Your task to perform on an android device: Go to Yahoo.com Image 0: 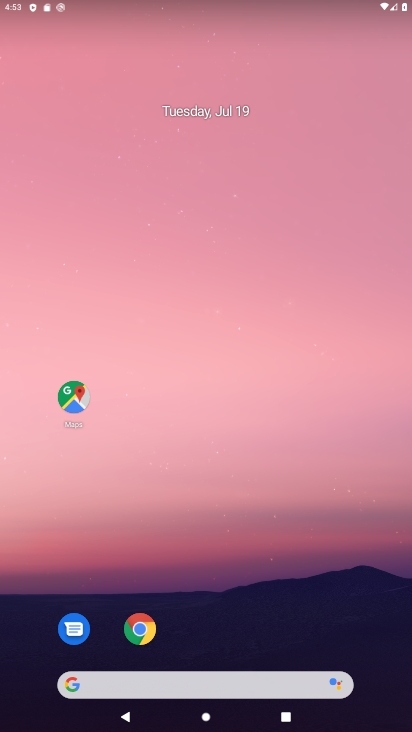
Step 0: click (78, 691)
Your task to perform on an android device: Go to Yahoo.com Image 1: 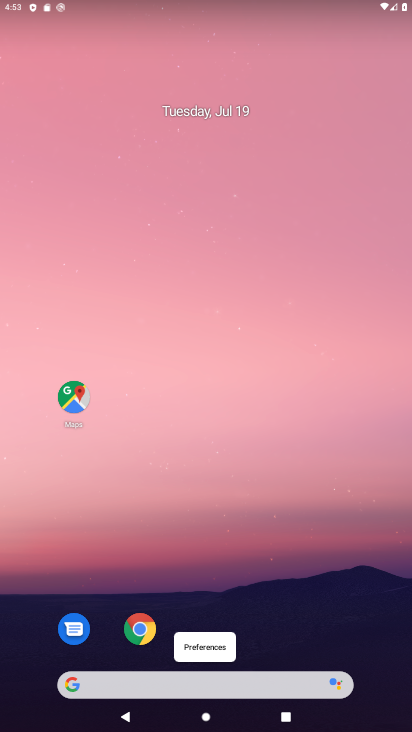
Step 1: click (73, 687)
Your task to perform on an android device: Go to Yahoo.com Image 2: 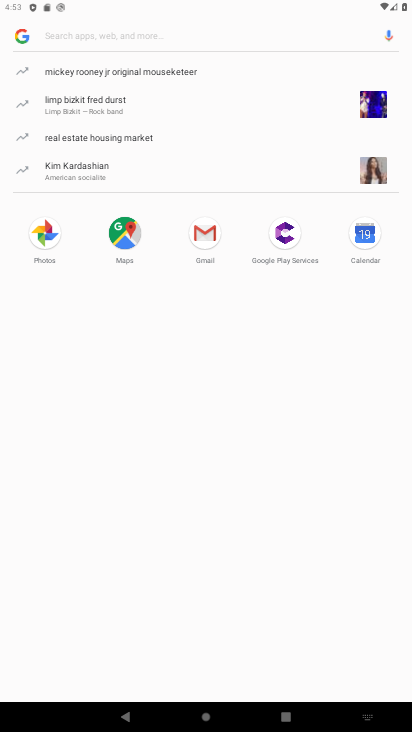
Step 2: type "Yahoo.com"
Your task to perform on an android device: Go to Yahoo.com Image 3: 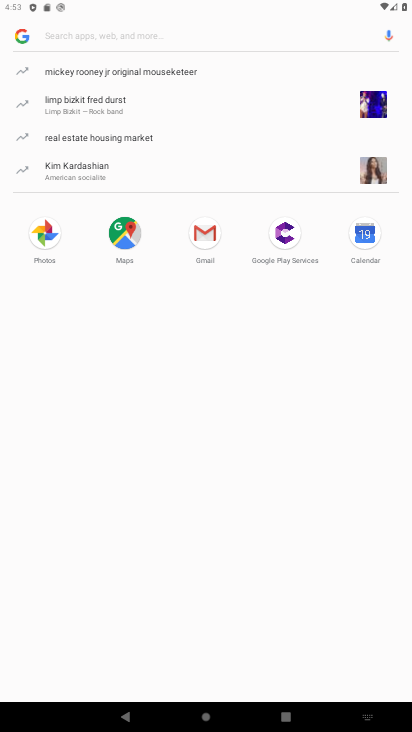
Step 3: click (77, 34)
Your task to perform on an android device: Go to Yahoo.com Image 4: 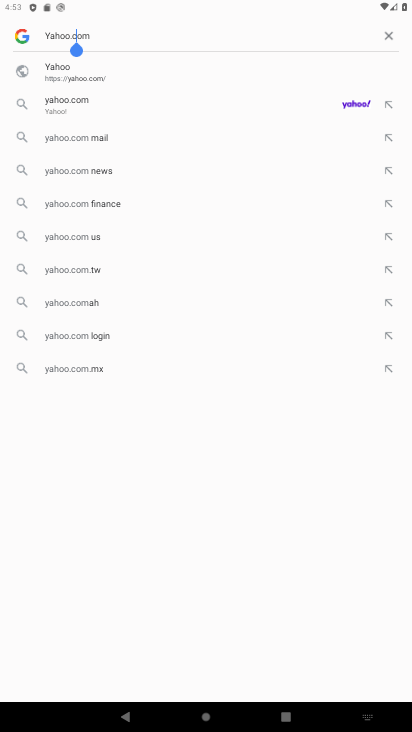
Step 4: press enter
Your task to perform on an android device: Go to Yahoo.com Image 5: 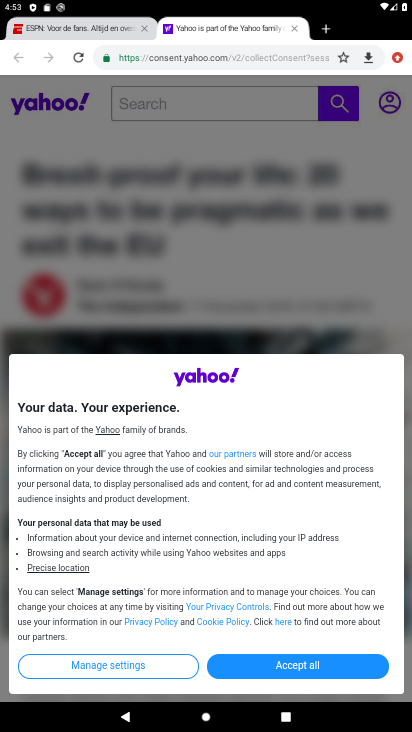
Step 5: click (307, 669)
Your task to perform on an android device: Go to Yahoo.com Image 6: 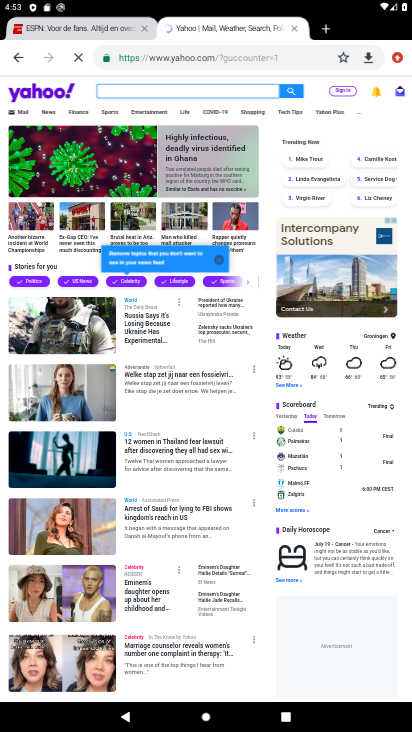
Step 6: task complete